Your task to perform on an android device: Open location settings Image 0: 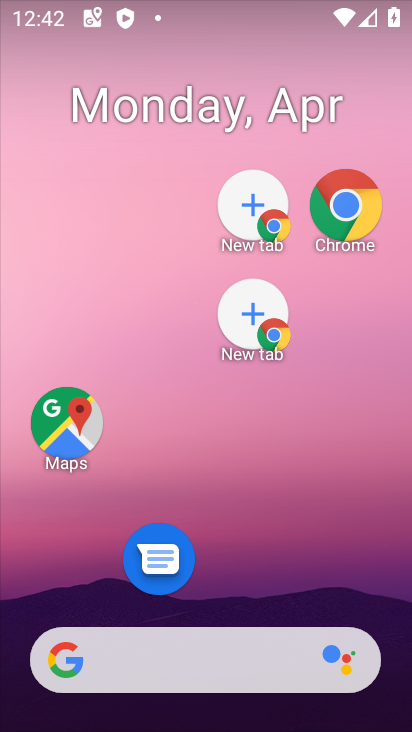
Step 0: drag from (247, 575) to (180, 162)
Your task to perform on an android device: Open location settings Image 1: 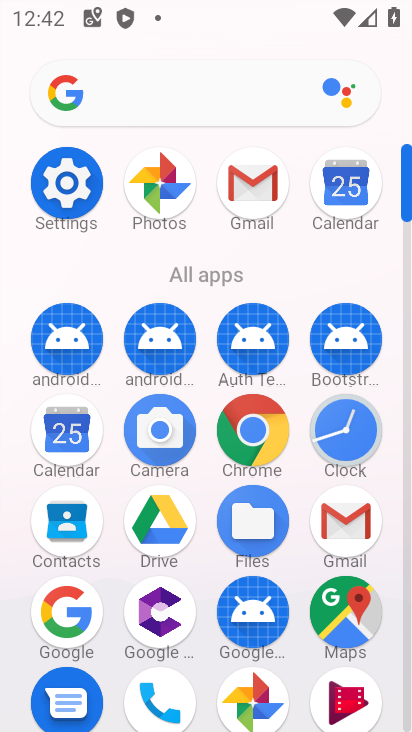
Step 1: click (53, 196)
Your task to perform on an android device: Open location settings Image 2: 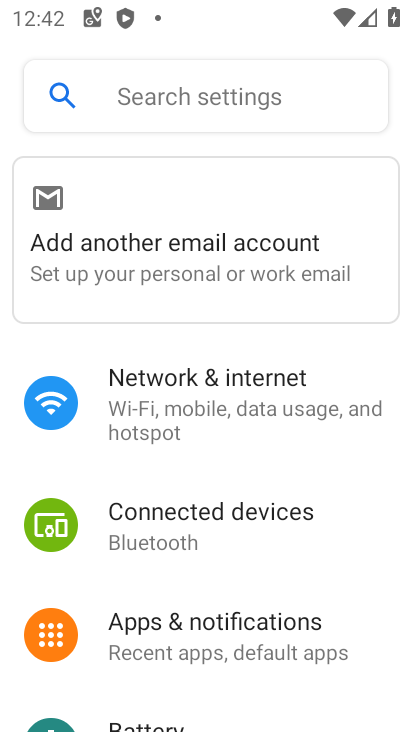
Step 2: drag from (181, 598) to (220, 239)
Your task to perform on an android device: Open location settings Image 3: 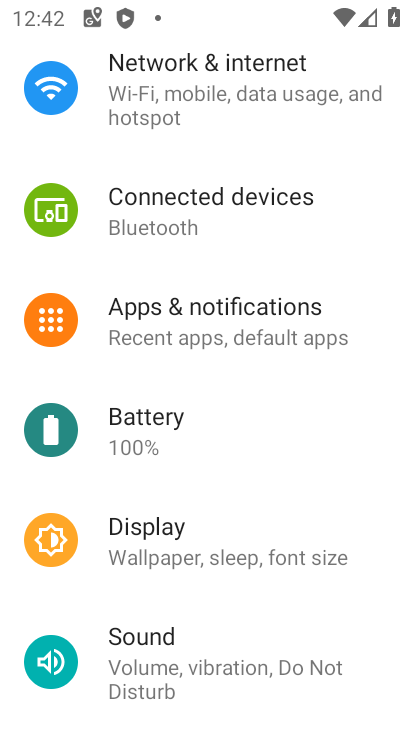
Step 3: drag from (182, 595) to (237, 224)
Your task to perform on an android device: Open location settings Image 4: 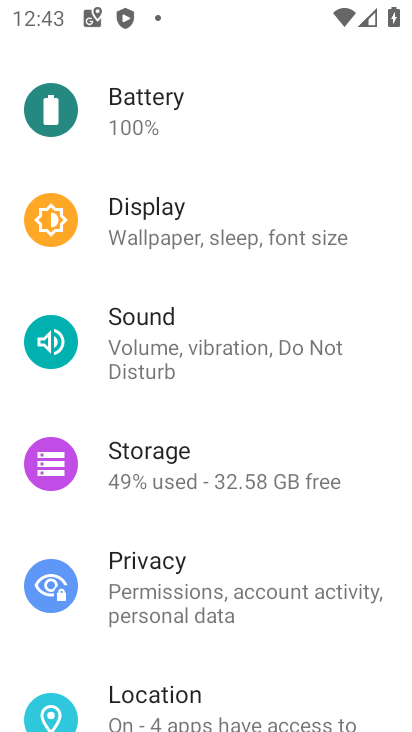
Step 4: click (191, 702)
Your task to perform on an android device: Open location settings Image 5: 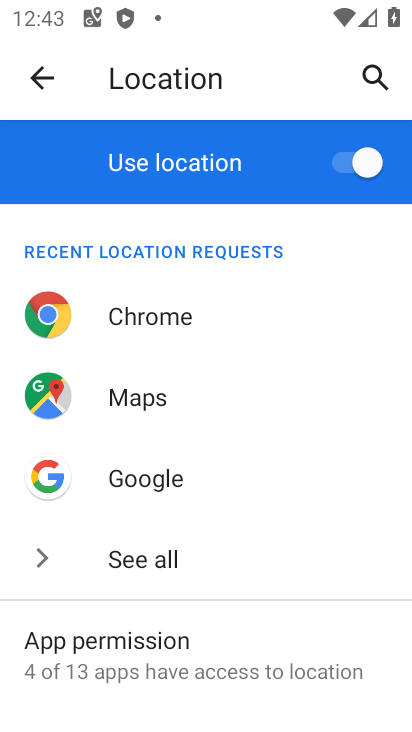
Step 5: task complete